Your task to perform on an android device: toggle pop-ups in chrome Image 0: 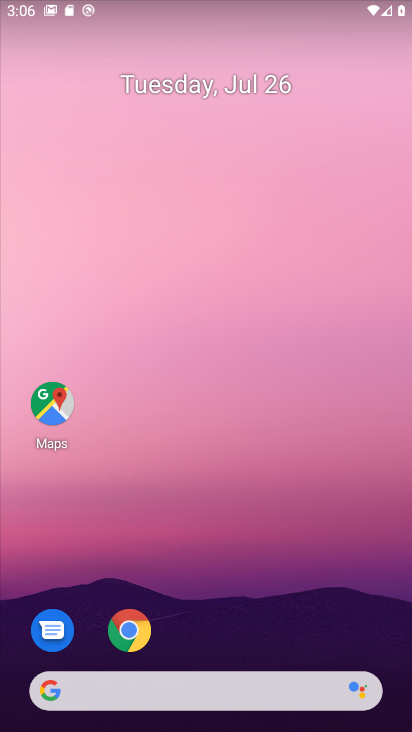
Step 0: click (137, 625)
Your task to perform on an android device: toggle pop-ups in chrome Image 1: 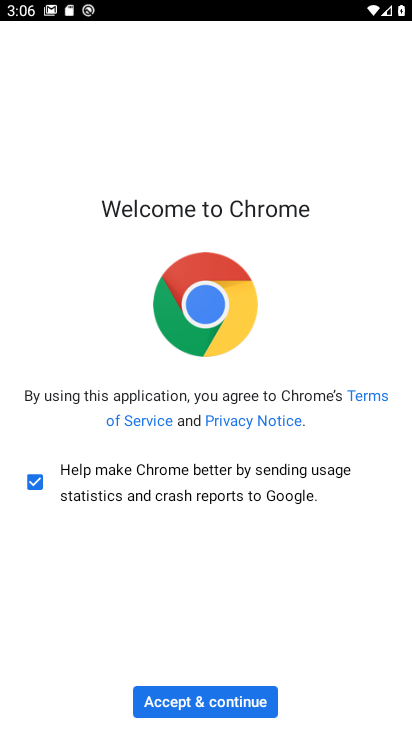
Step 1: click (191, 708)
Your task to perform on an android device: toggle pop-ups in chrome Image 2: 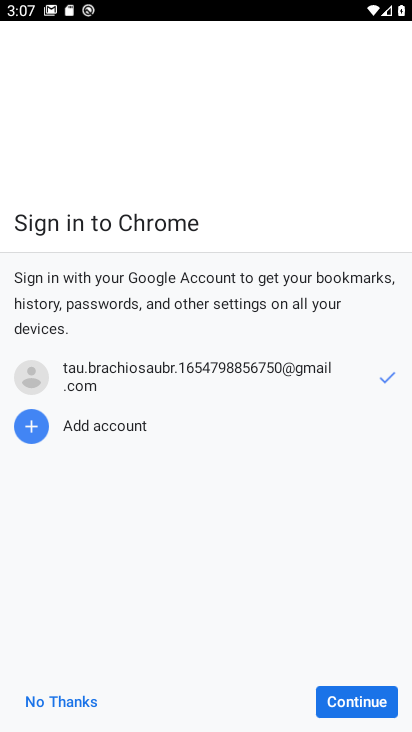
Step 2: click (375, 713)
Your task to perform on an android device: toggle pop-ups in chrome Image 3: 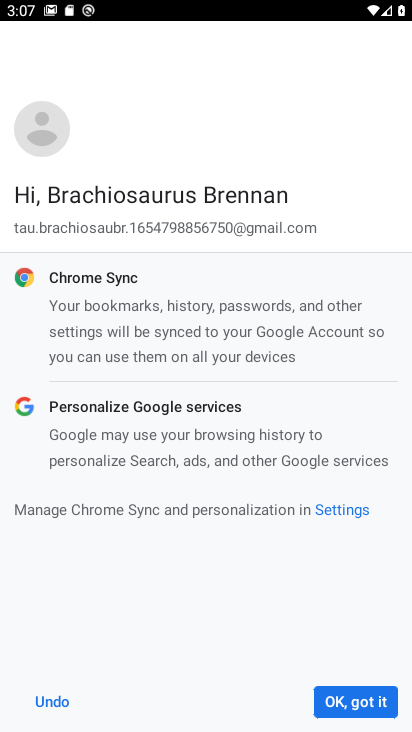
Step 3: click (382, 703)
Your task to perform on an android device: toggle pop-ups in chrome Image 4: 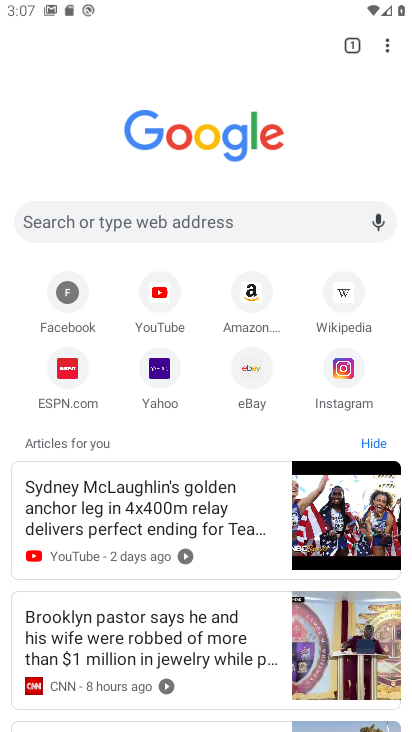
Step 4: click (399, 37)
Your task to perform on an android device: toggle pop-ups in chrome Image 5: 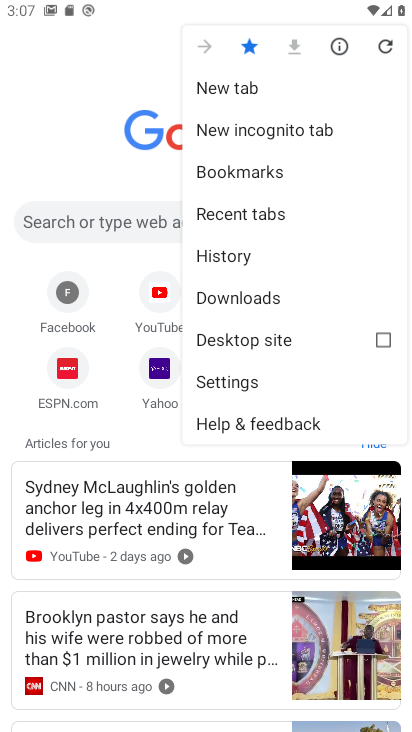
Step 5: click (209, 378)
Your task to perform on an android device: toggle pop-ups in chrome Image 6: 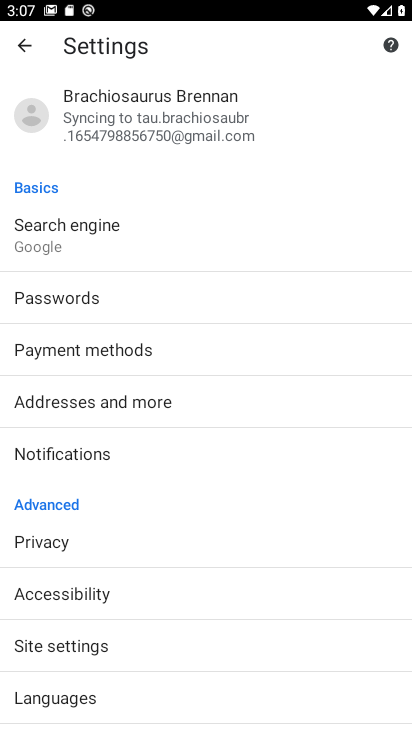
Step 6: click (88, 648)
Your task to perform on an android device: toggle pop-ups in chrome Image 7: 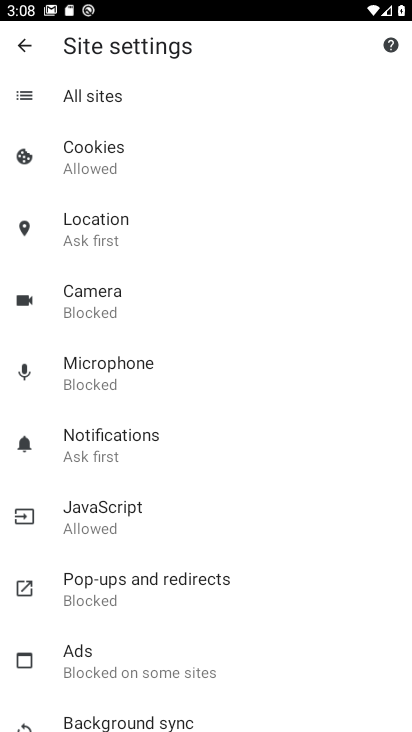
Step 7: click (124, 590)
Your task to perform on an android device: toggle pop-ups in chrome Image 8: 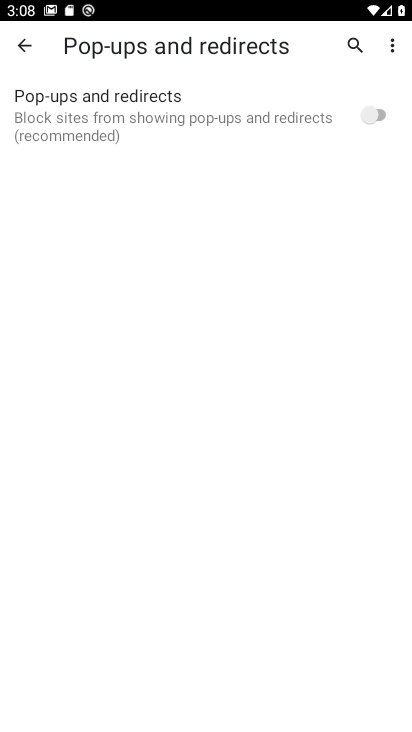
Step 8: click (383, 108)
Your task to perform on an android device: toggle pop-ups in chrome Image 9: 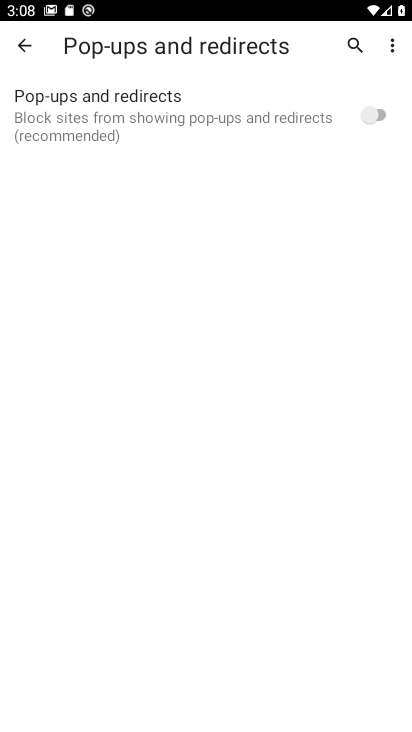
Step 9: click (383, 108)
Your task to perform on an android device: toggle pop-ups in chrome Image 10: 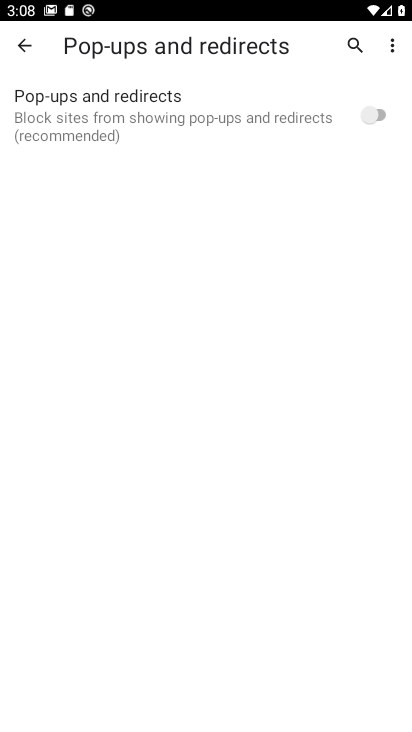
Step 10: task complete